Your task to perform on an android device: Open location settings Image 0: 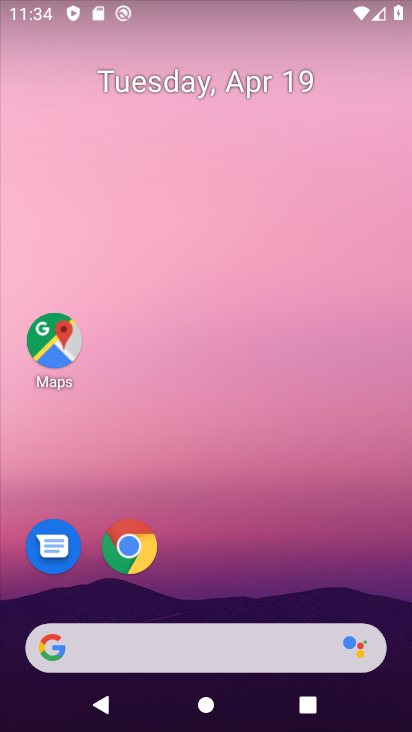
Step 0: drag from (234, 713) to (290, 59)
Your task to perform on an android device: Open location settings Image 1: 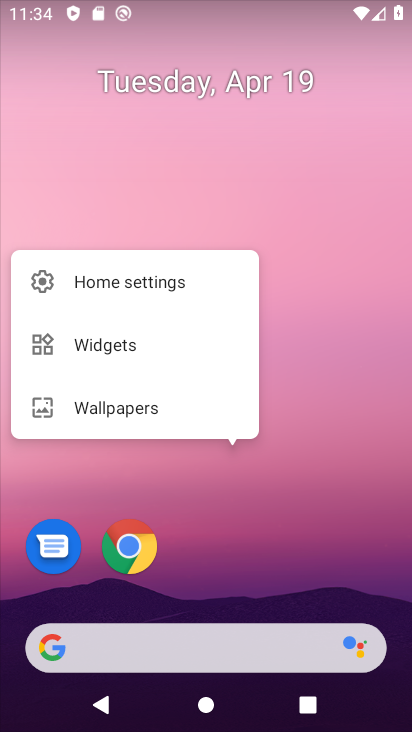
Step 1: drag from (266, 715) to (353, 2)
Your task to perform on an android device: Open location settings Image 2: 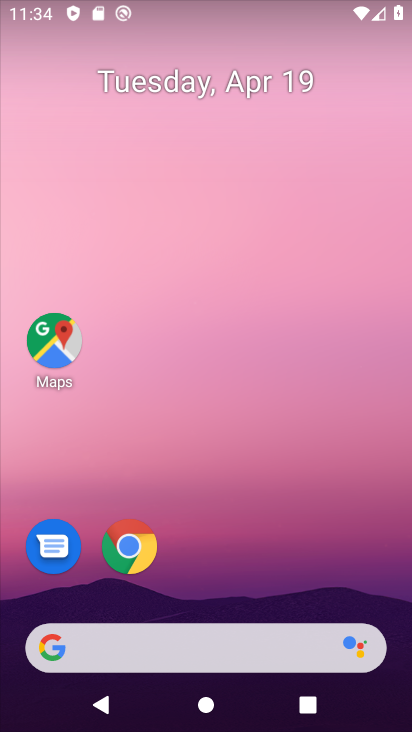
Step 2: drag from (277, 714) to (266, 11)
Your task to perform on an android device: Open location settings Image 3: 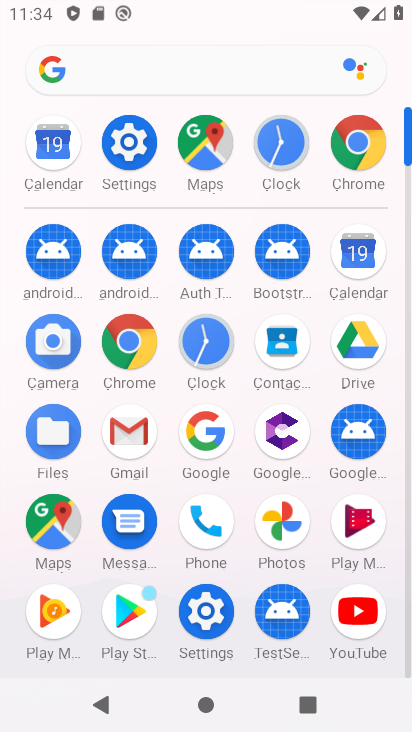
Step 3: click (126, 146)
Your task to perform on an android device: Open location settings Image 4: 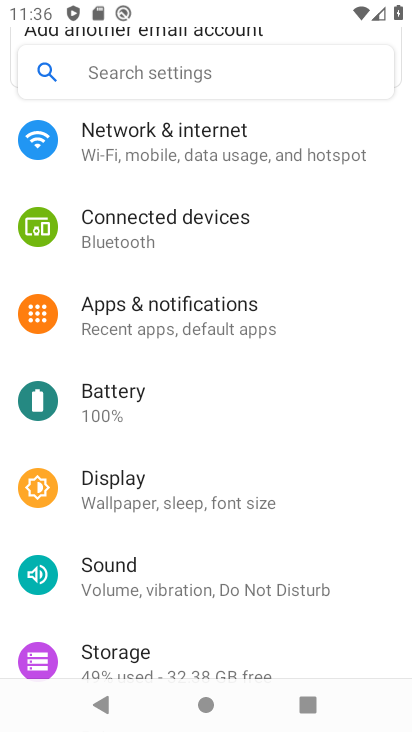
Step 4: drag from (305, 607) to (140, 648)
Your task to perform on an android device: Open location settings Image 5: 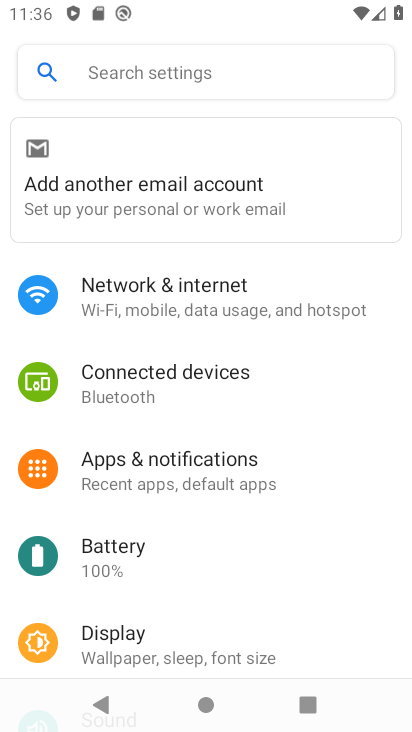
Step 5: drag from (282, 642) to (283, 42)
Your task to perform on an android device: Open location settings Image 6: 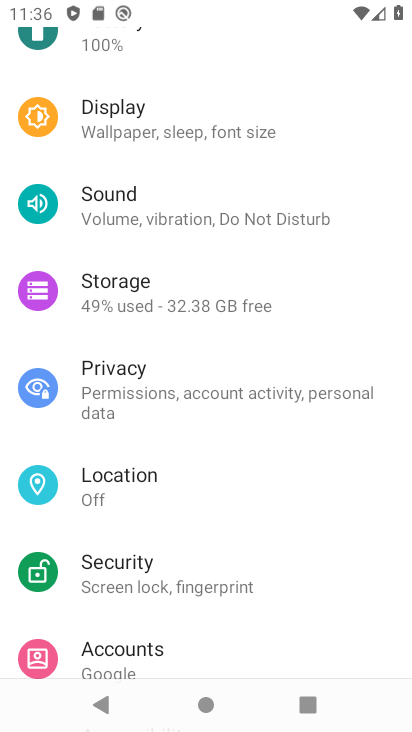
Step 6: click (239, 480)
Your task to perform on an android device: Open location settings Image 7: 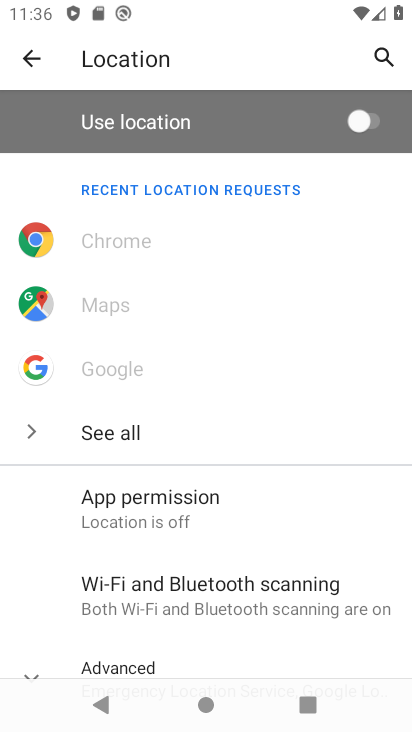
Step 7: task complete